Your task to perform on an android device: Open settings Image 0: 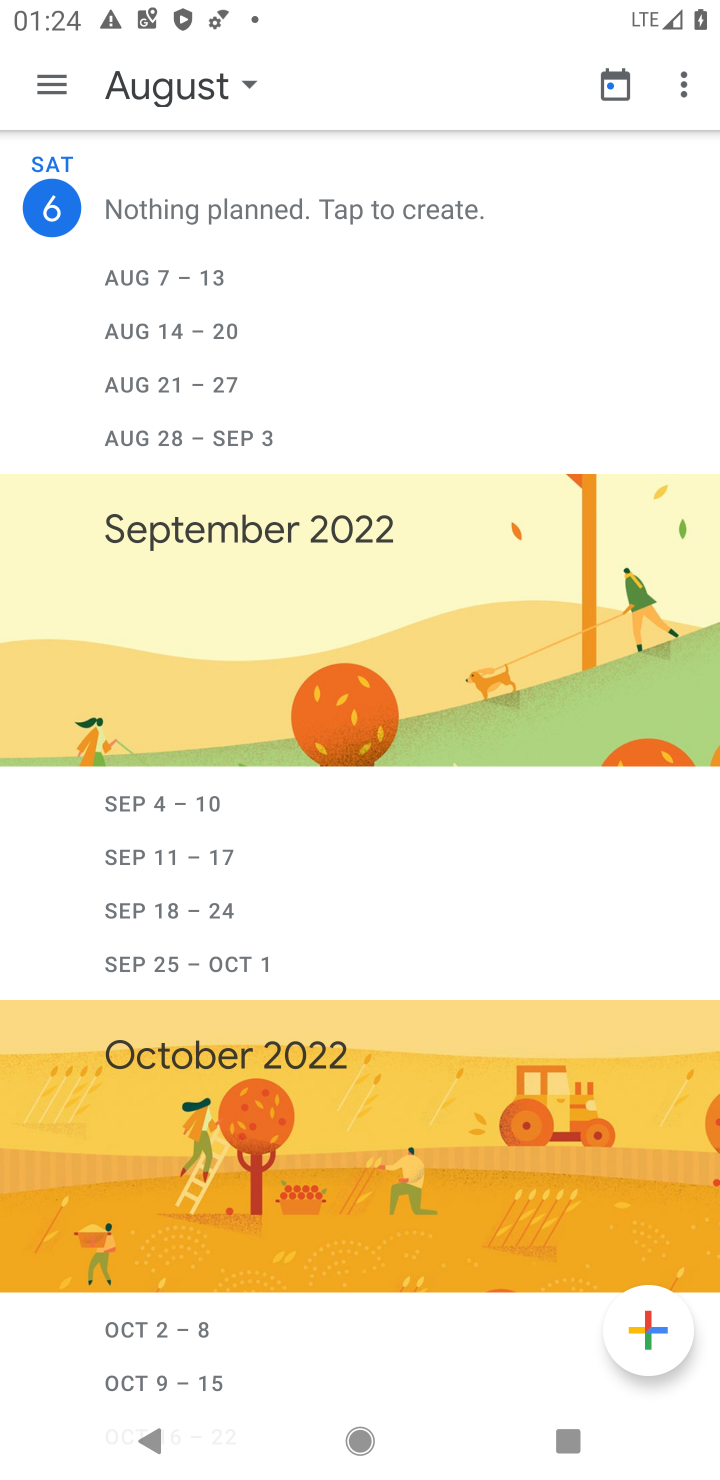
Step 0: drag from (186, 780) to (142, 1435)
Your task to perform on an android device: Open settings Image 1: 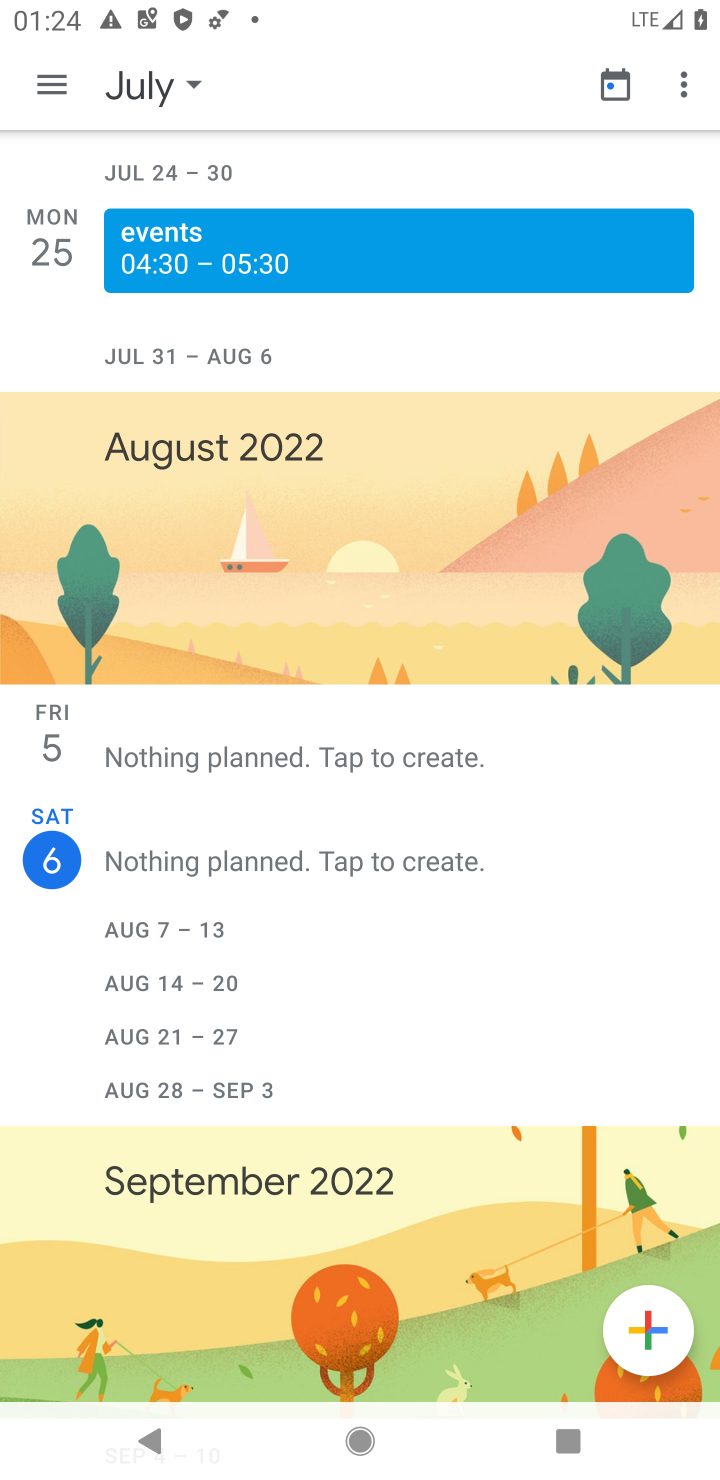
Step 1: click (142, 1435)
Your task to perform on an android device: Open settings Image 2: 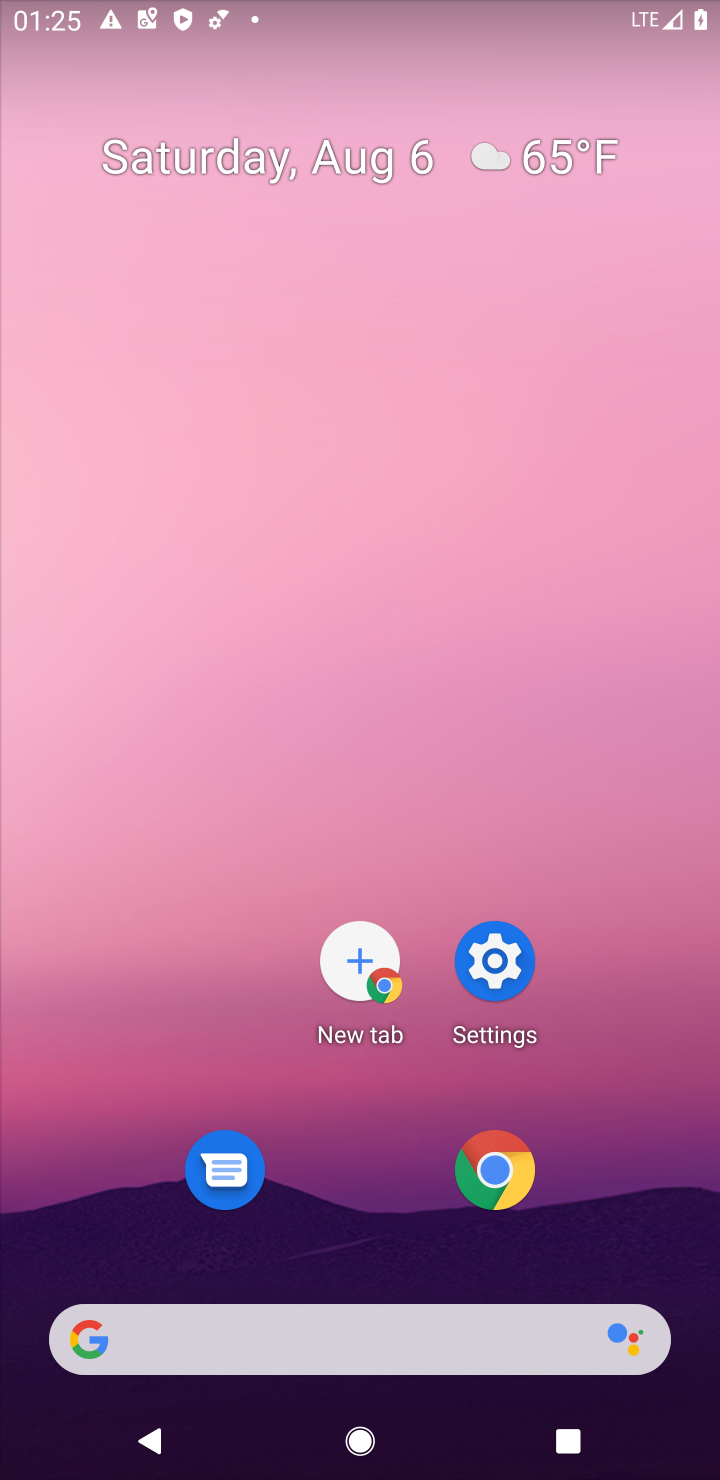
Step 2: click (378, 981)
Your task to perform on an android device: Open settings Image 3: 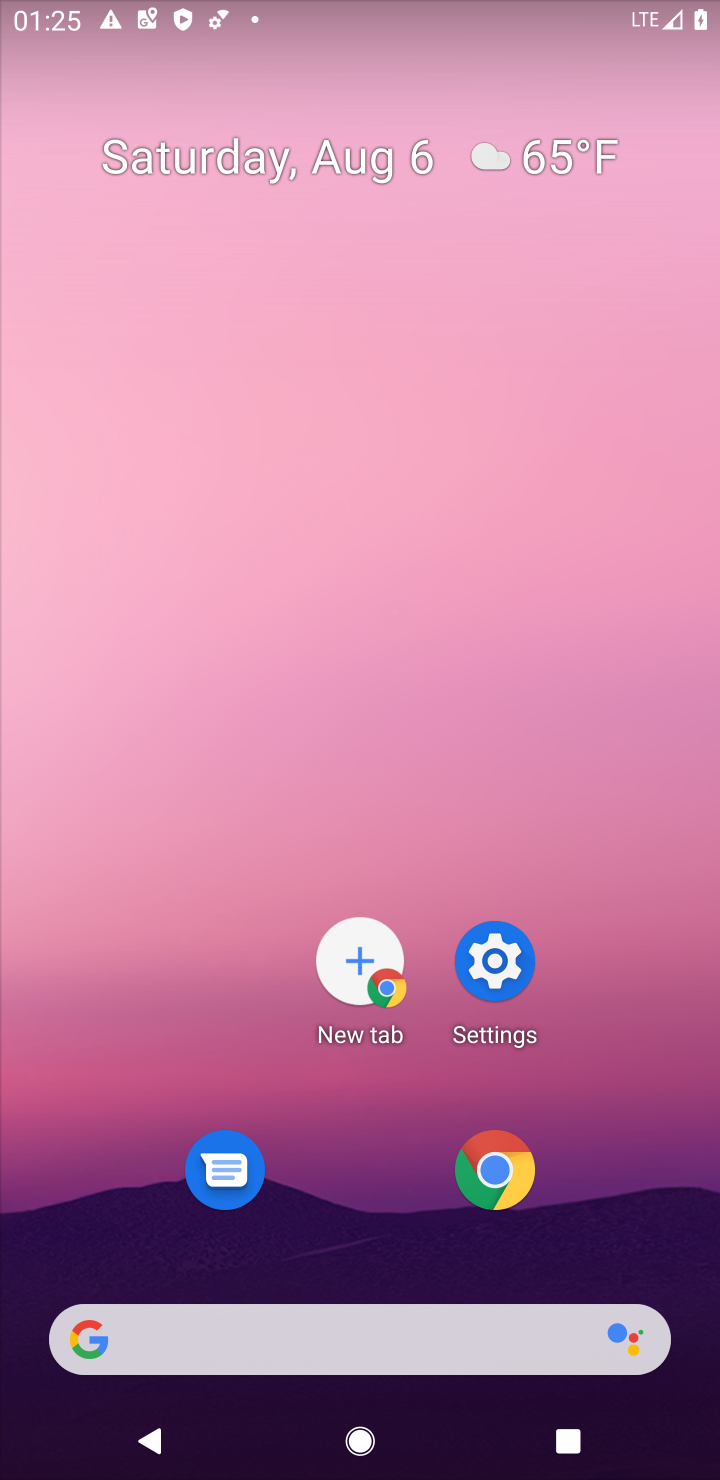
Step 3: click (493, 985)
Your task to perform on an android device: Open settings Image 4: 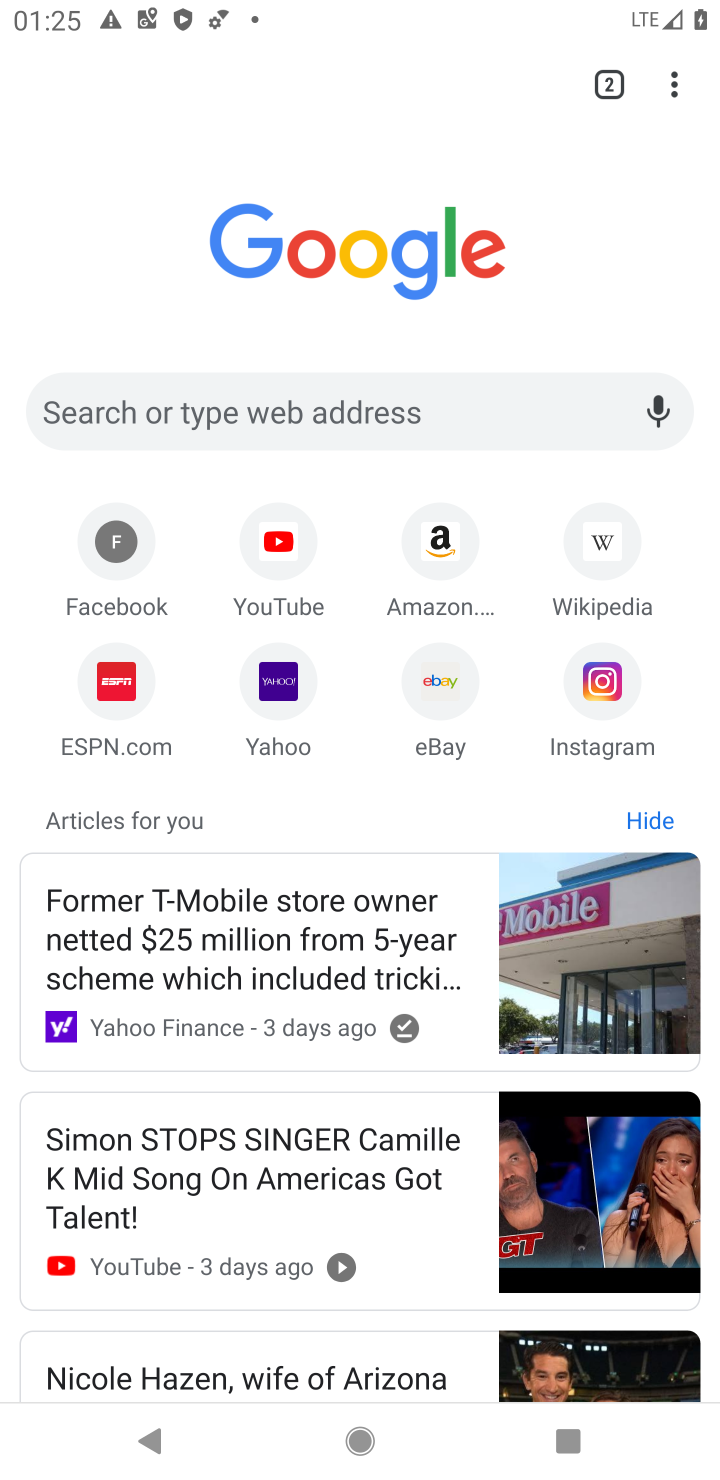
Step 4: click (167, 1426)
Your task to perform on an android device: Open settings Image 5: 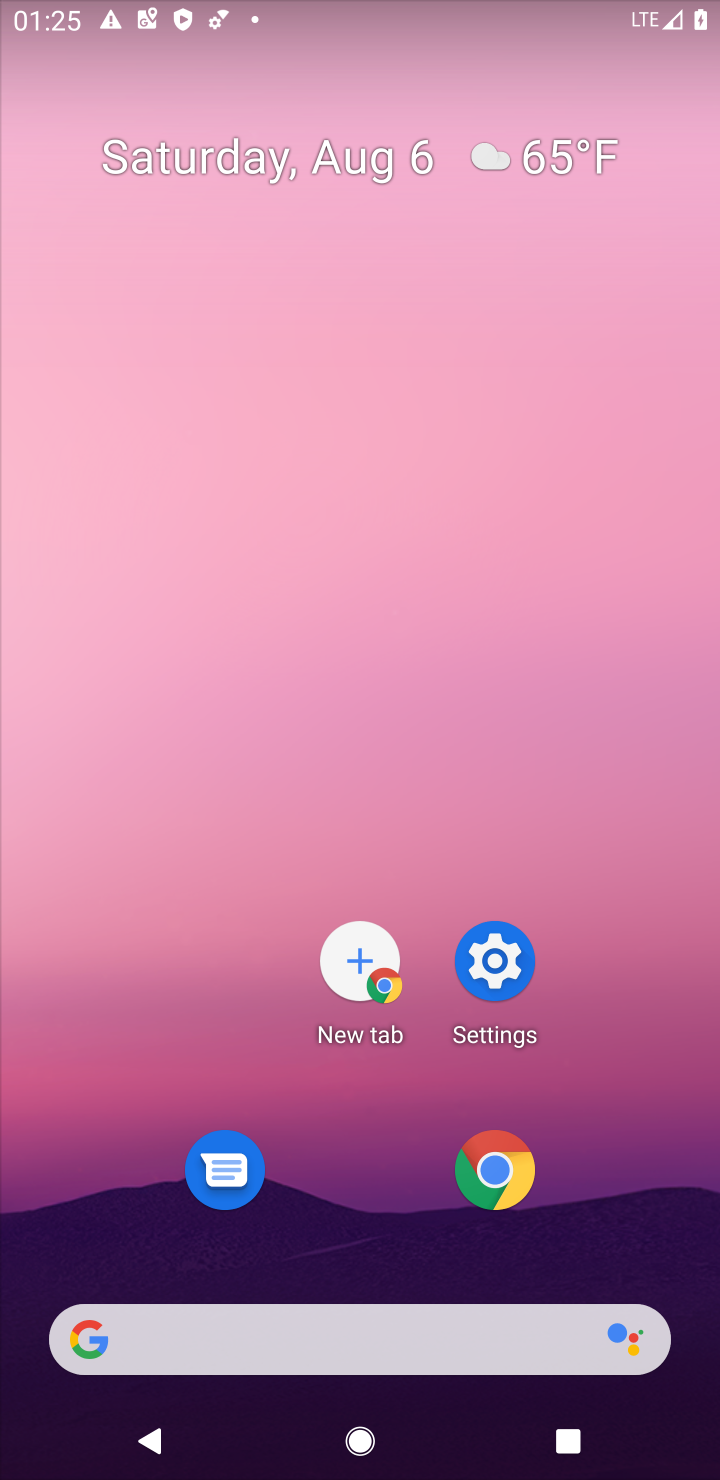
Step 5: click (498, 962)
Your task to perform on an android device: Open settings Image 6: 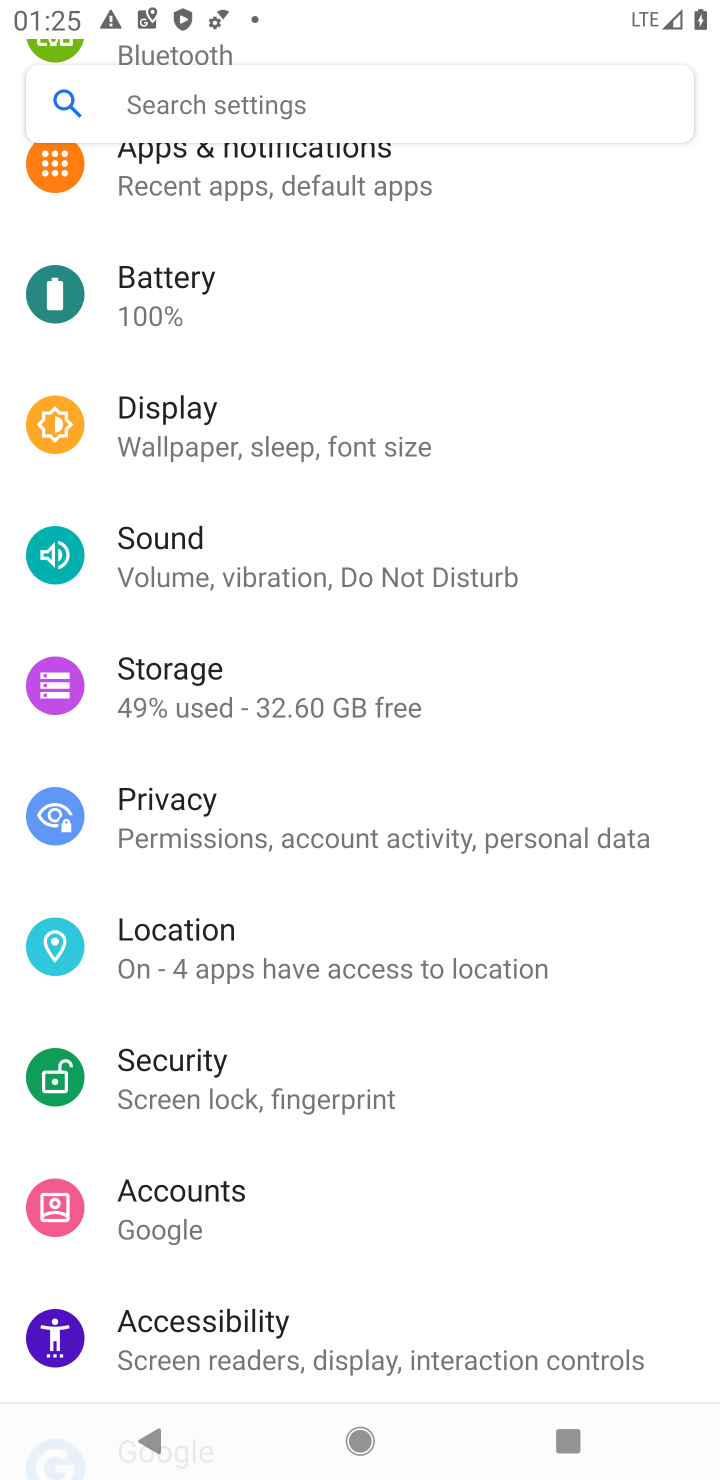
Step 6: task complete